Your task to perform on an android device: Search for sushi restaurants on Maps Image 0: 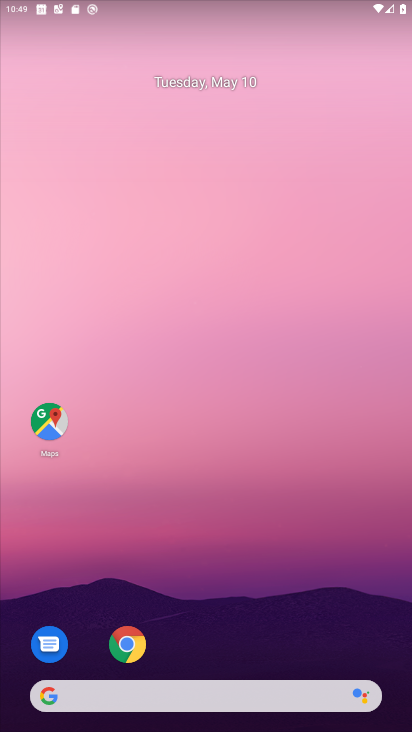
Step 0: drag from (184, 682) to (200, 159)
Your task to perform on an android device: Search for sushi restaurants on Maps Image 1: 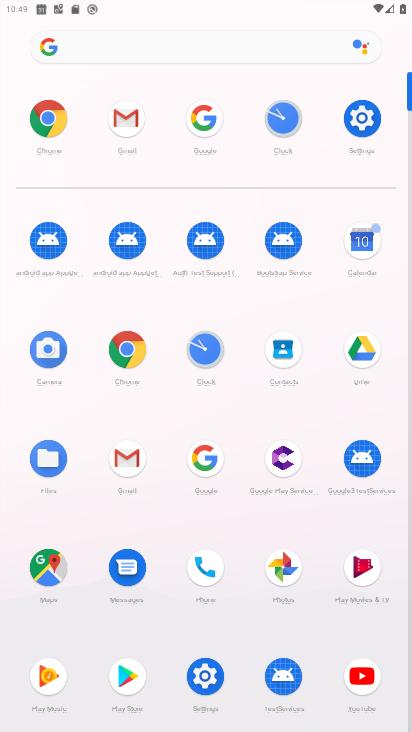
Step 1: click (49, 588)
Your task to perform on an android device: Search for sushi restaurants on Maps Image 2: 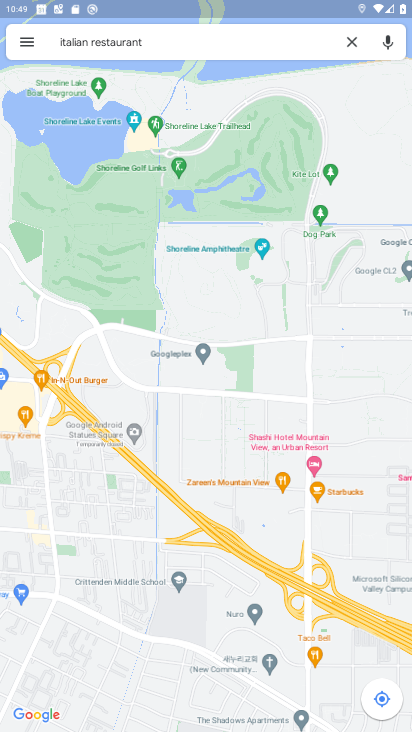
Step 2: click (348, 48)
Your task to perform on an android device: Search for sushi restaurants on Maps Image 3: 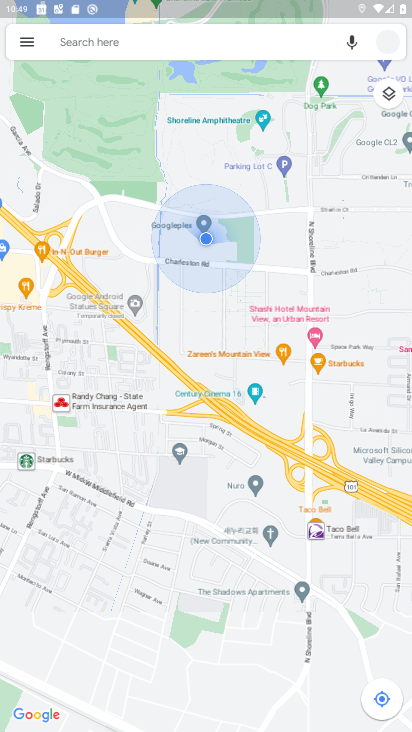
Step 3: click (259, 47)
Your task to perform on an android device: Search for sushi restaurants on Maps Image 4: 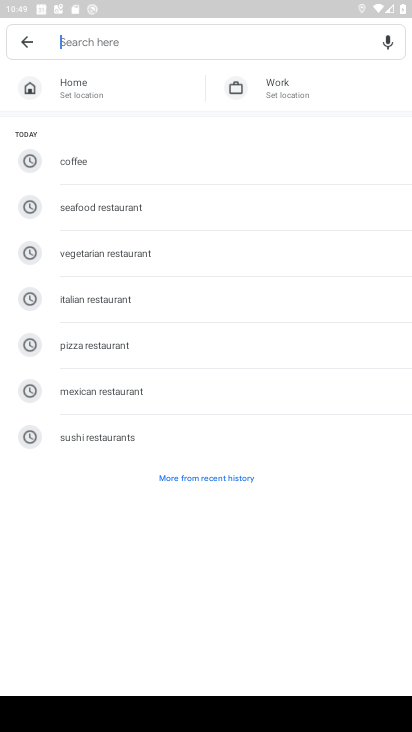
Step 4: click (109, 439)
Your task to perform on an android device: Search for sushi restaurants on Maps Image 5: 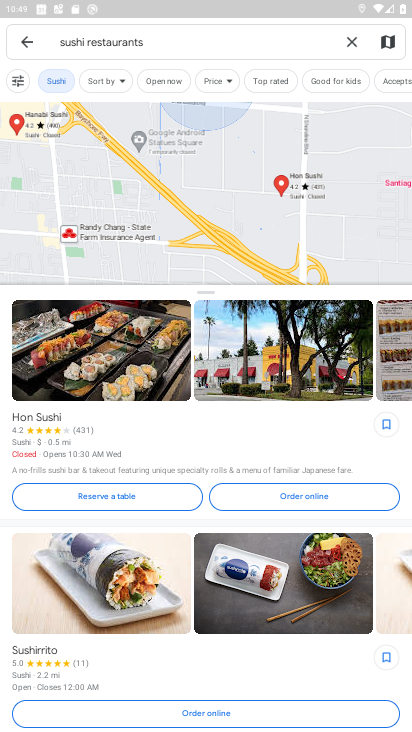
Step 5: task complete